Your task to perform on an android device: Open Google Chrome and click the shortcut for Amazon.com Image 0: 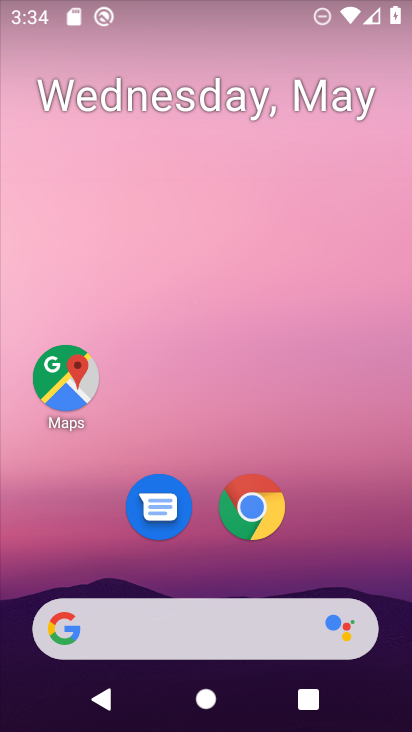
Step 0: click (274, 522)
Your task to perform on an android device: Open Google Chrome and click the shortcut for Amazon.com Image 1: 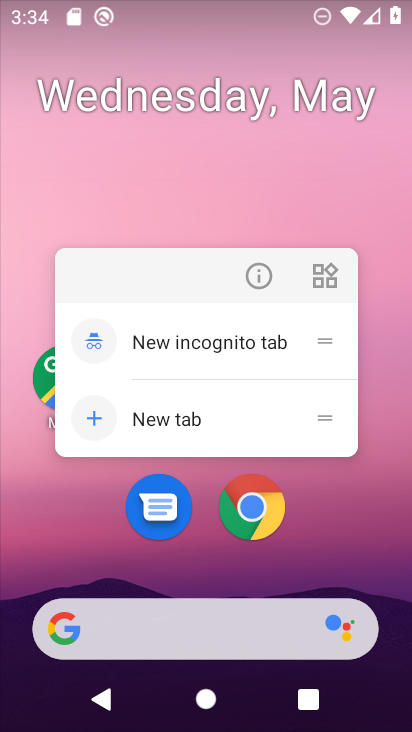
Step 1: click (256, 511)
Your task to perform on an android device: Open Google Chrome and click the shortcut for Amazon.com Image 2: 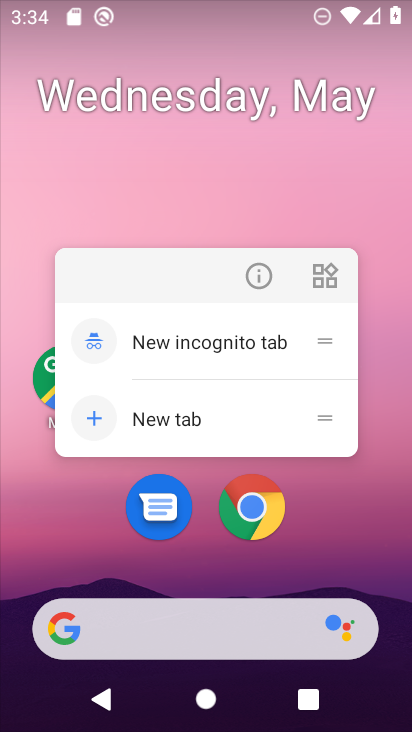
Step 2: click (254, 509)
Your task to perform on an android device: Open Google Chrome and click the shortcut for Amazon.com Image 3: 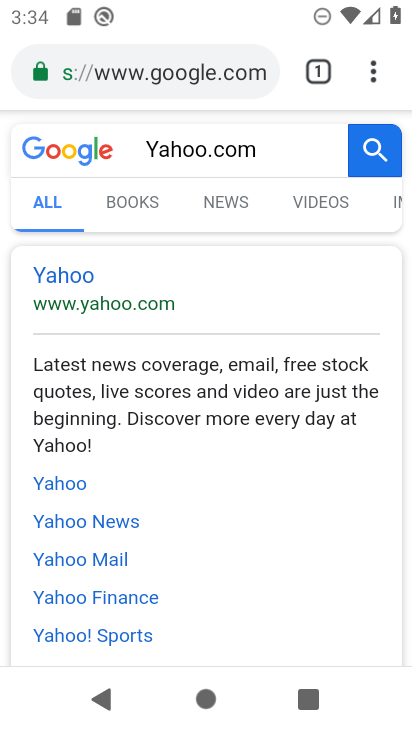
Step 3: click (370, 68)
Your task to perform on an android device: Open Google Chrome and click the shortcut for Amazon.com Image 4: 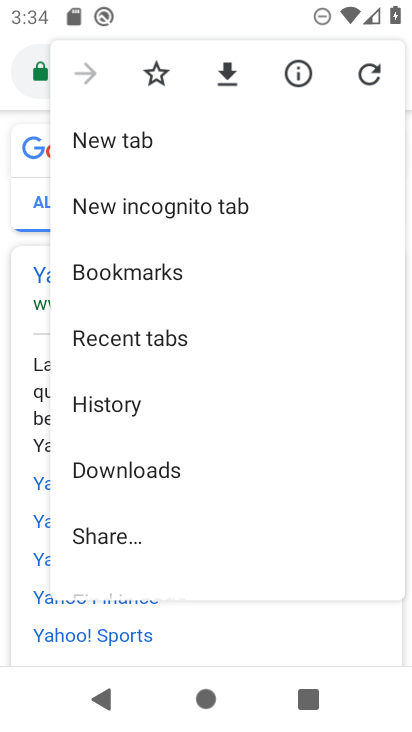
Step 4: click (133, 146)
Your task to perform on an android device: Open Google Chrome and click the shortcut for Amazon.com Image 5: 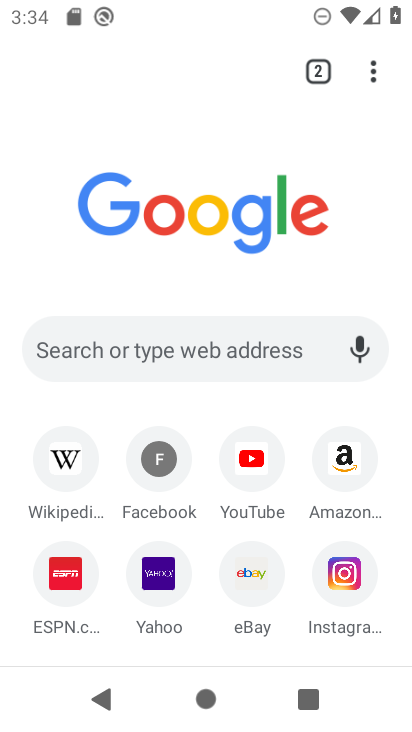
Step 5: click (348, 469)
Your task to perform on an android device: Open Google Chrome and click the shortcut for Amazon.com Image 6: 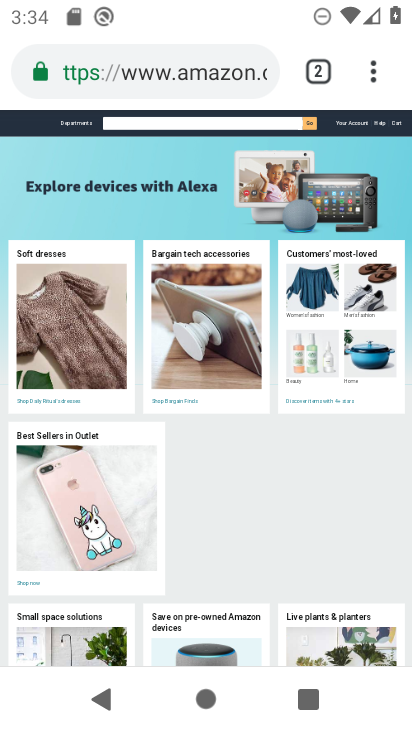
Step 6: task complete